Your task to perform on an android device: Find coffee shops on Maps Image 0: 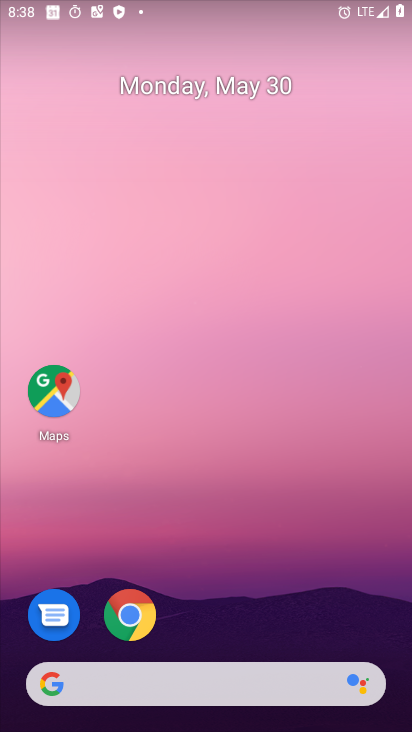
Step 0: drag from (311, 555) to (187, 11)
Your task to perform on an android device: Find coffee shops on Maps Image 1: 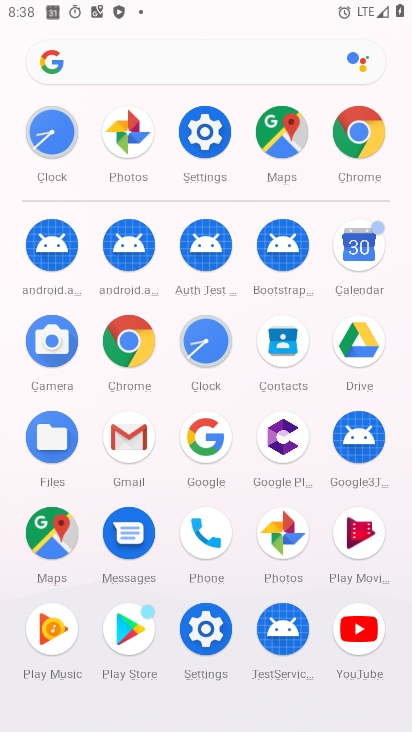
Step 1: click (268, 124)
Your task to perform on an android device: Find coffee shops on Maps Image 2: 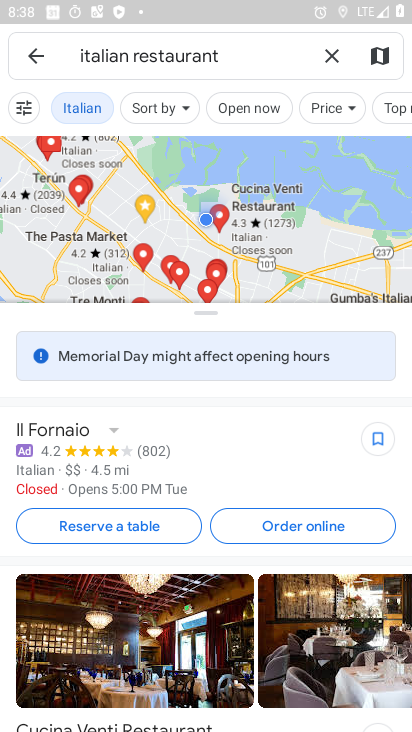
Step 2: click (324, 47)
Your task to perform on an android device: Find coffee shops on Maps Image 3: 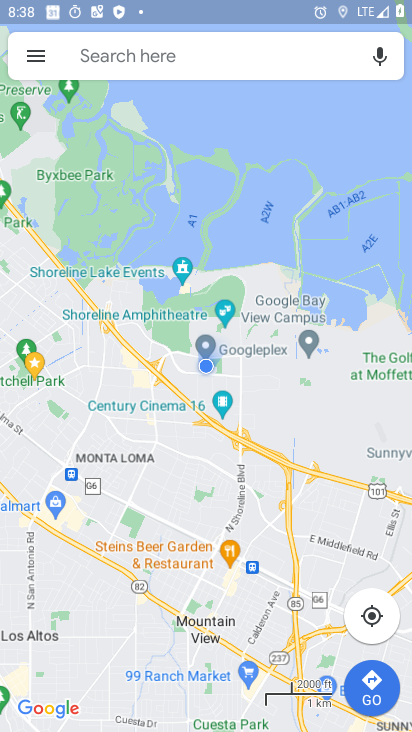
Step 3: click (138, 49)
Your task to perform on an android device: Find coffee shops on Maps Image 4: 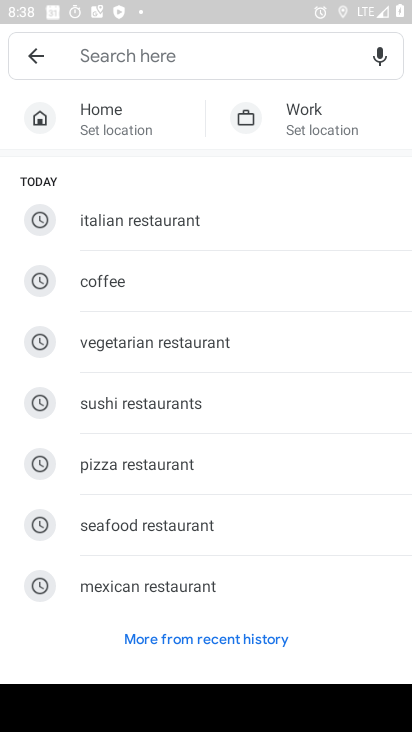
Step 4: click (156, 276)
Your task to perform on an android device: Find coffee shops on Maps Image 5: 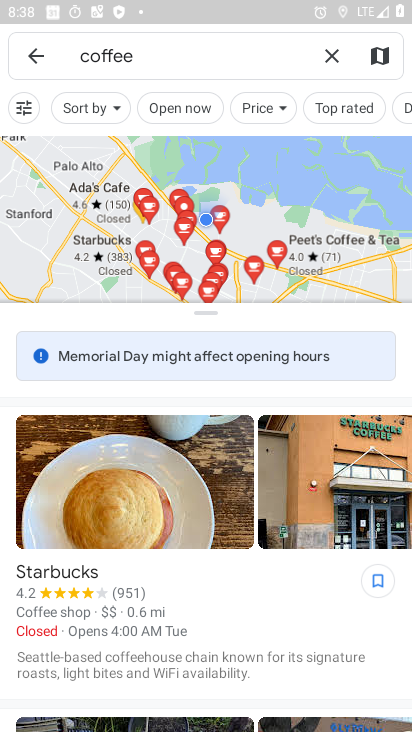
Step 5: task complete